Your task to perform on an android device: change the upload size in google photos Image 0: 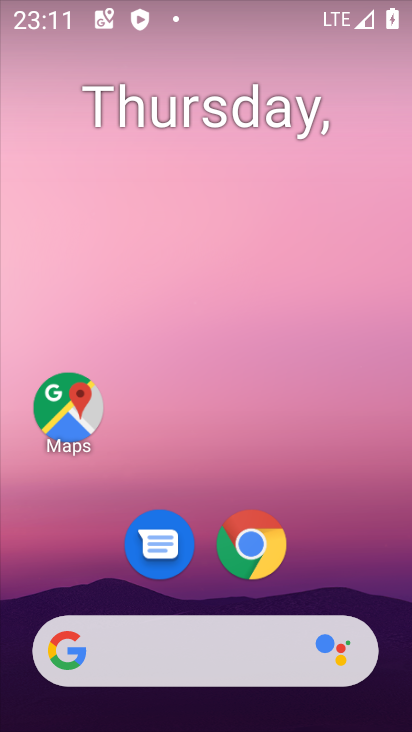
Step 0: drag from (191, 280) to (184, 45)
Your task to perform on an android device: change the upload size in google photos Image 1: 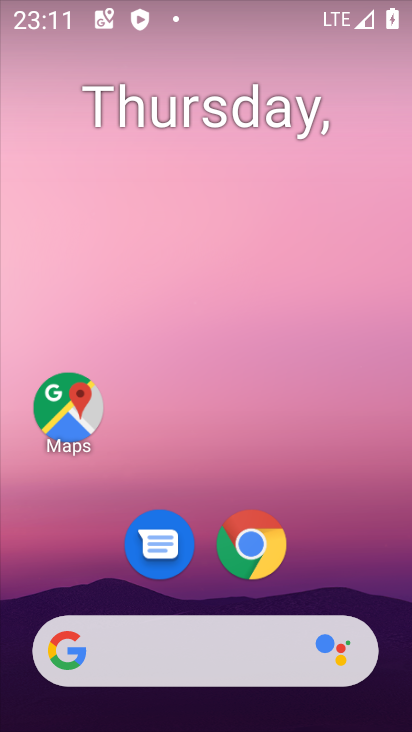
Step 1: drag from (296, 523) to (287, 216)
Your task to perform on an android device: change the upload size in google photos Image 2: 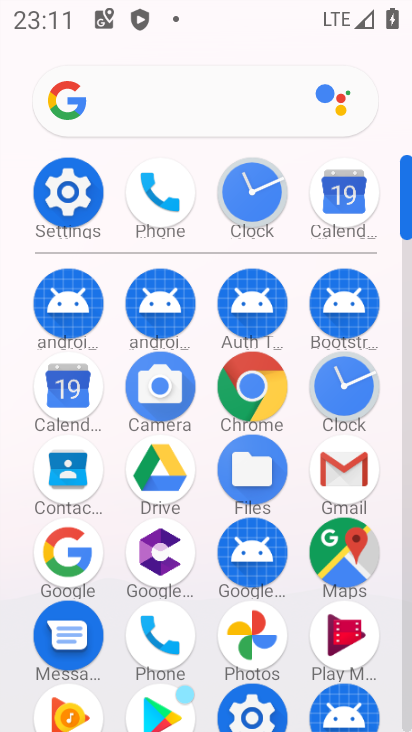
Step 2: click (275, 622)
Your task to perform on an android device: change the upload size in google photos Image 3: 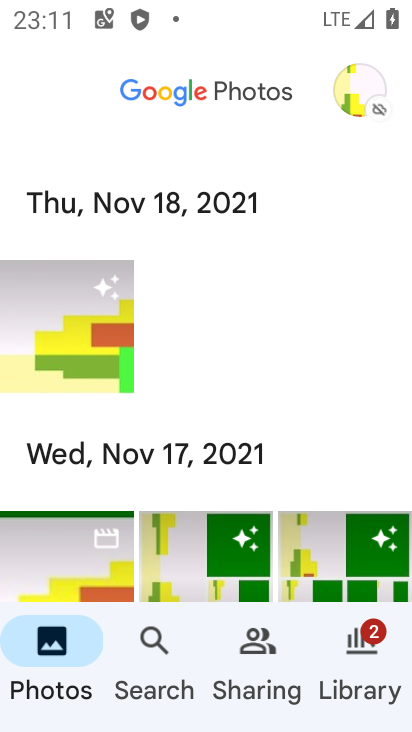
Step 3: click (364, 97)
Your task to perform on an android device: change the upload size in google photos Image 4: 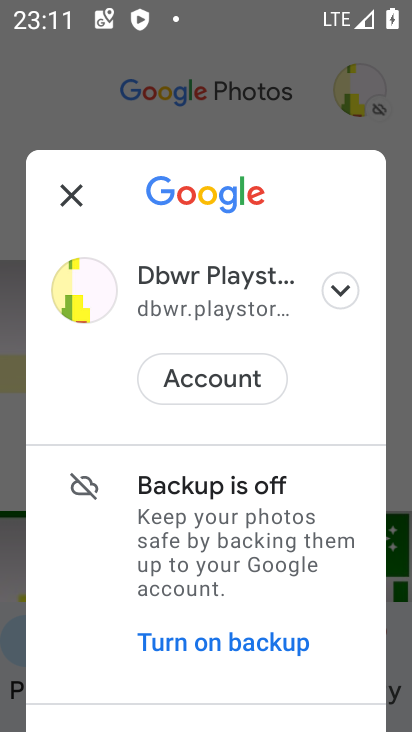
Step 4: drag from (212, 413) to (215, 270)
Your task to perform on an android device: change the upload size in google photos Image 5: 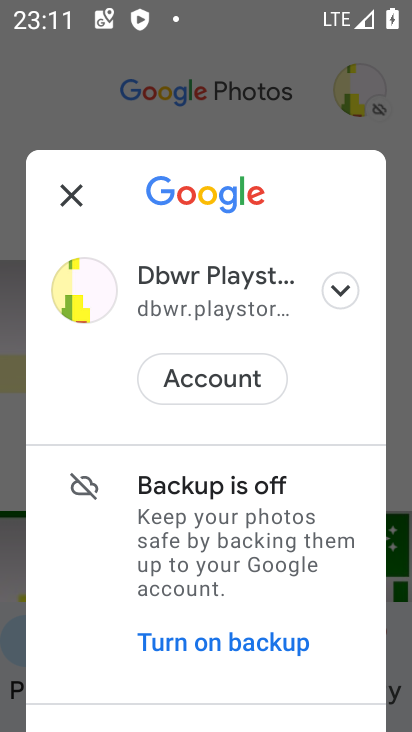
Step 5: drag from (280, 563) to (285, 74)
Your task to perform on an android device: change the upload size in google photos Image 6: 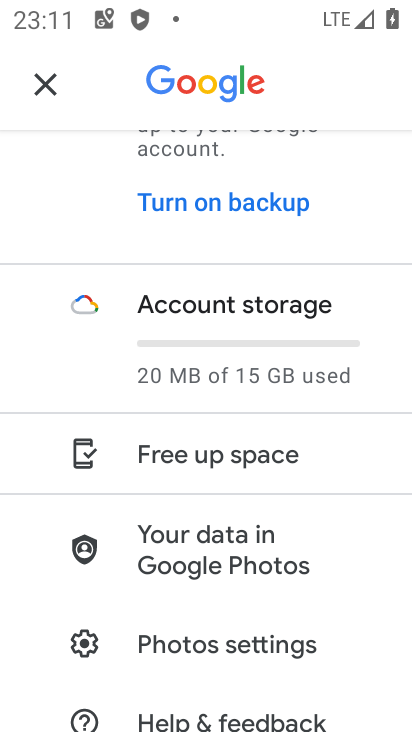
Step 6: click (202, 647)
Your task to perform on an android device: change the upload size in google photos Image 7: 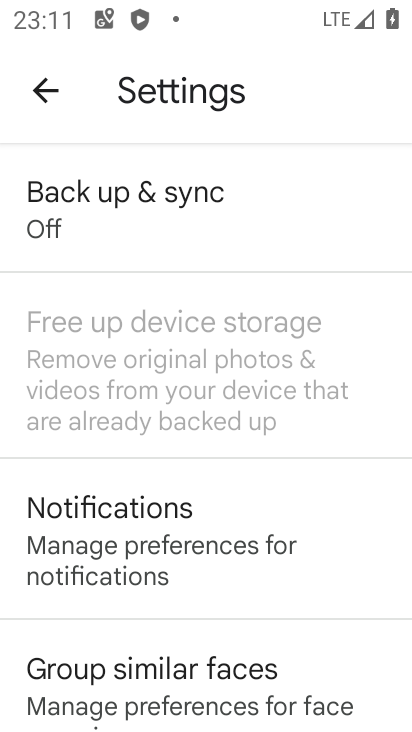
Step 7: task complete